Your task to perform on an android device: Open the web browser Image 0: 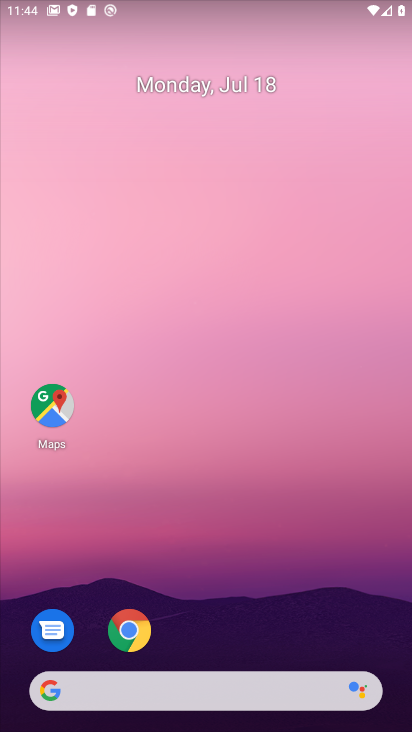
Step 0: drag from (253, 649) to (277, 162)
Your task to perform on an android device: Open the web browser Image 1: 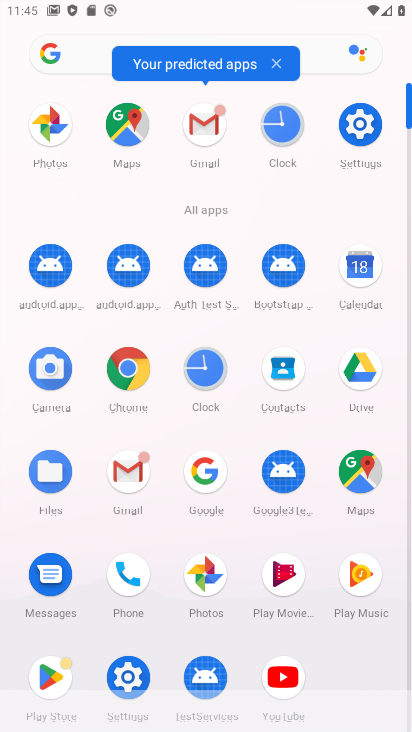
Step 1: task complete